Your task to perform on an android device: Add razer kraken to the cart on newegg Image 0: 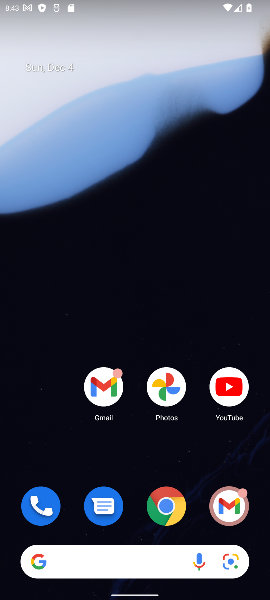
Step 0: click (183, 488)
Your task to perform on an android device: Add razer kraken to the cart on newegg Image 1: 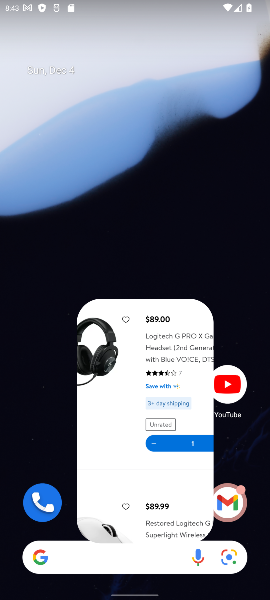
Step 1: click (164, 504)
Your task to perform on an android device: Add razer kraken to the cart on newegg Image 2: 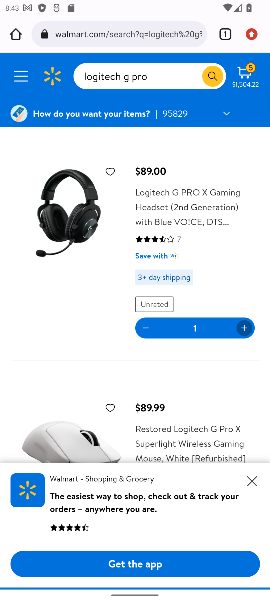
Step 2: click (108, 32)
Your task to perform on an android device: Add razer kraken to the cart on newegg Image 3: 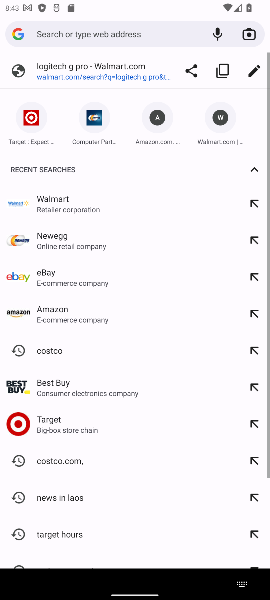
Step 3: click (81, 243)
Your task to perform on an android device: Add razer kraken to the cart on newegg Image 4: 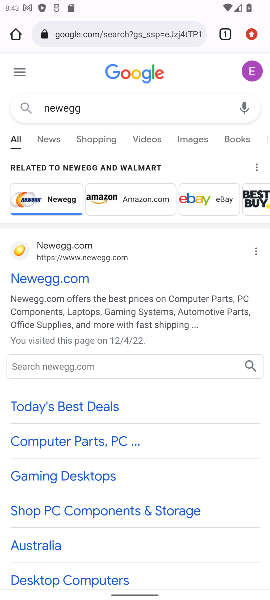
Step 4: click (49, 277)
Your task to perform on an android device: Add razer kraken to the cart on newegg Image 5: 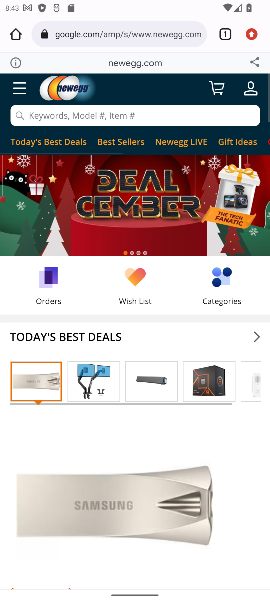
Step 5: click (124, 117)
Your task to perform on an android device: Add razer kraken to the cart on newegg Image 6: 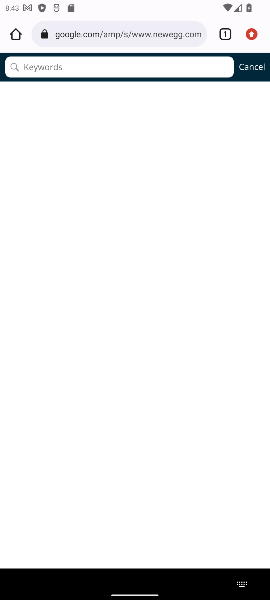
Step 6: click (37, 66)
Your task to perform on an android device: Add razer kraken to the cart on newegg Image 7: 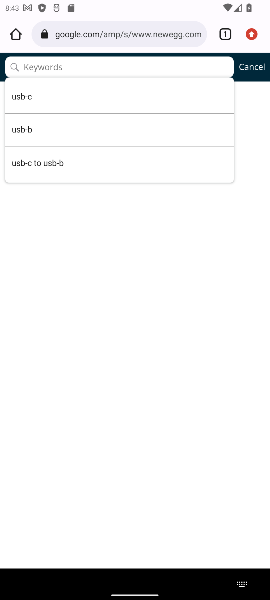
Step 7: type "razer kraken"
Your task to perform on an android device: Add razer kraken to the cart on newegg Image 8: 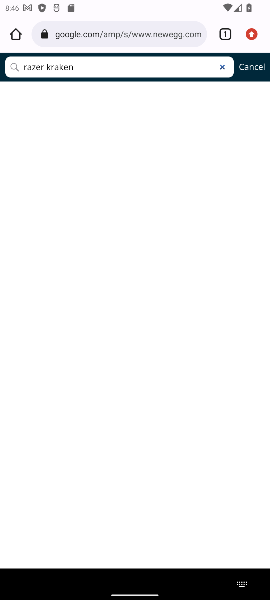
Step 8: task complete